Your task to perform on an android device: Check the news Image 0: 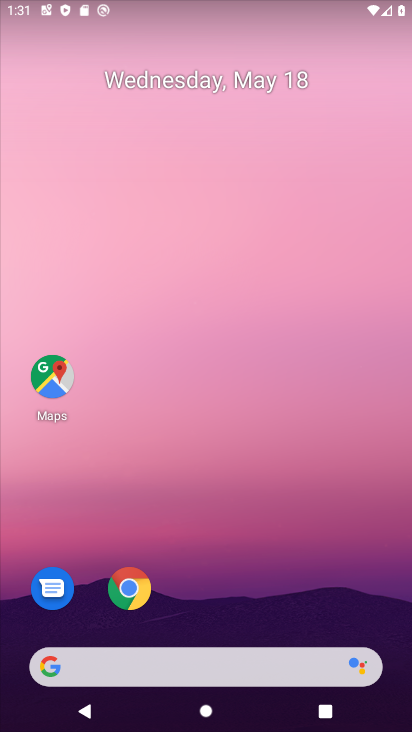
Step 0: drag from (114, 199) to (403, 308)
Your task to perform on an android device: Check the news Image 1: 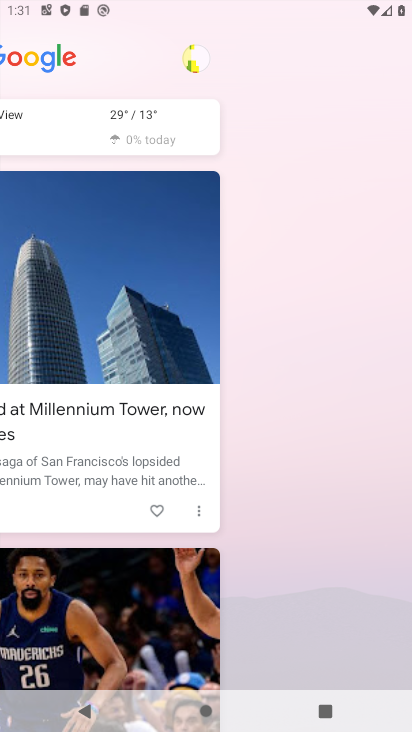
Step 1: drag from (312, 310) to (408, 503)
Your task to perform on an android device: Check the news Image 2: 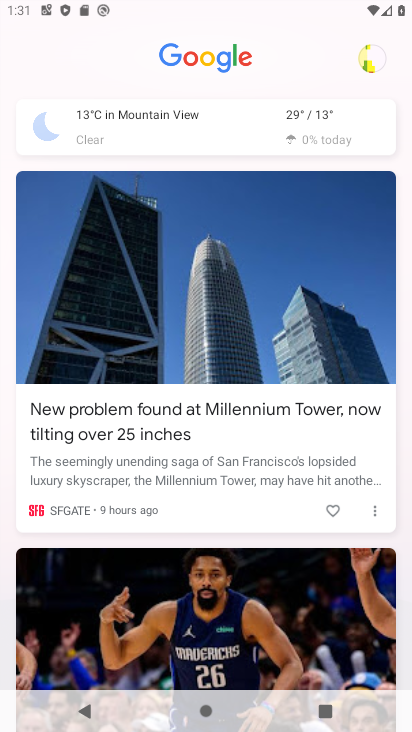
Step 2: drag from (308, 580) to (317, 321)
Your task to perform on an android device: Check the news Image 3: 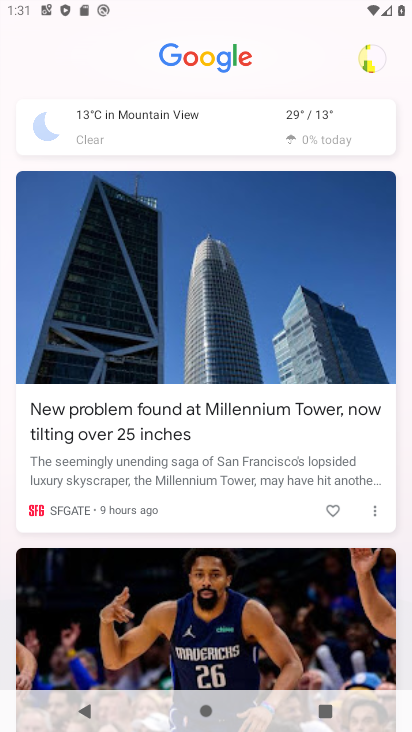
Step 3: click (400, 421)
Your task to perform on an android device: Check the news Image 4: 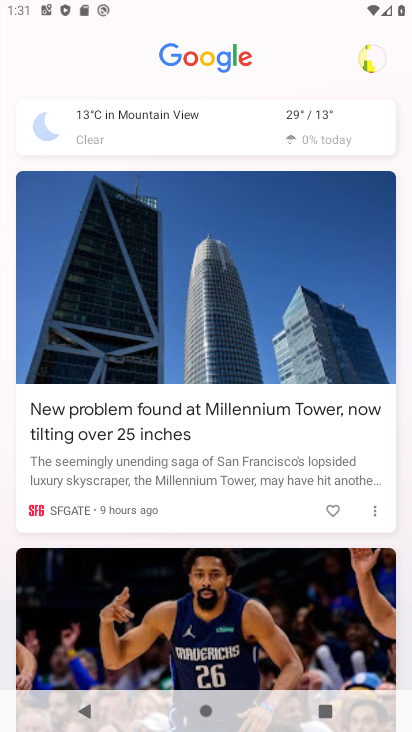
Step 4: task complete